Your task to perform on an android device: open app "DoorDash - Food Delivery" (install if not already installed) and go to login screen Image 0: 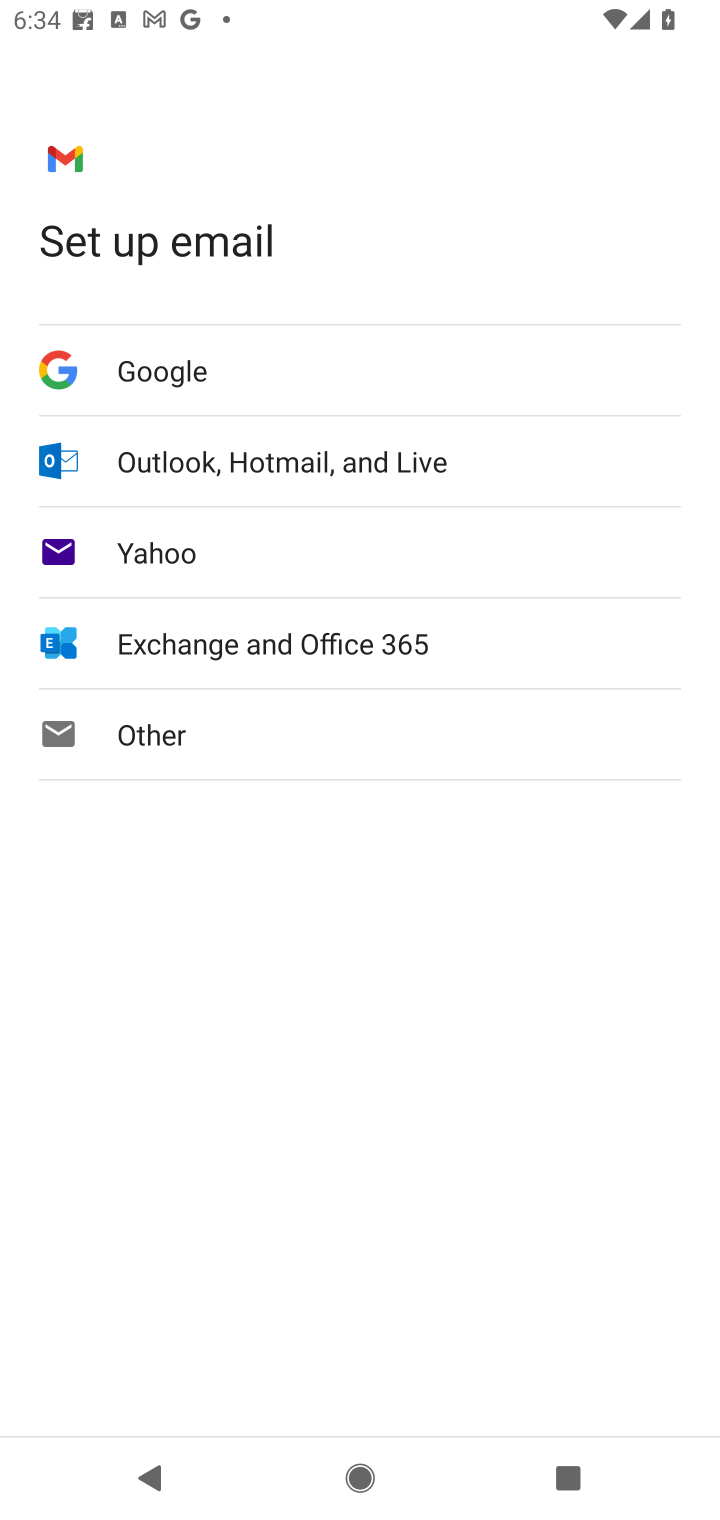
Step 0: press home button
Your task to perform on an android device: open app "DoorDash - Food Delivery" (install if not already installed) and go to login screen Image 1: 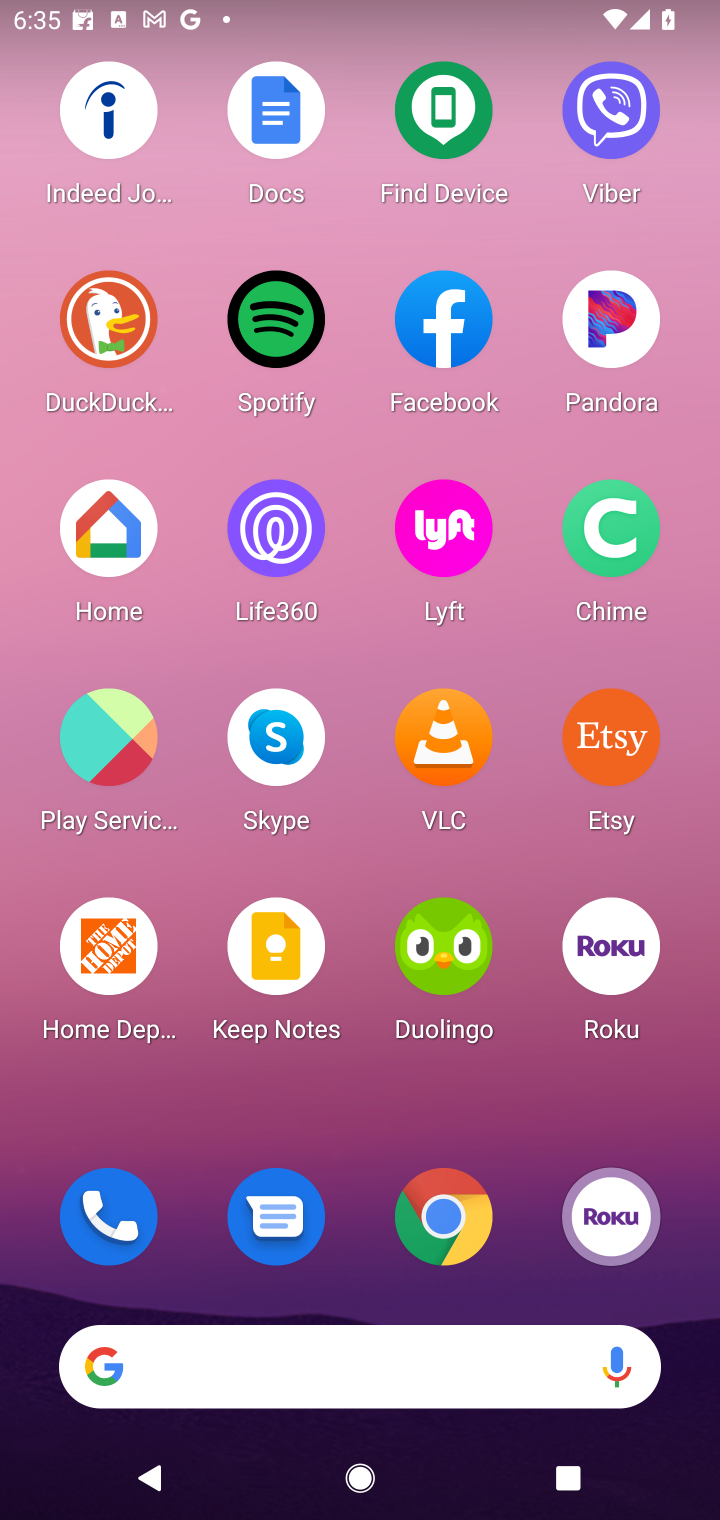
Step 1: drag from (350, 1133) to (363, 171)
Your task to perform on an android device: open app "DoorDash - Food Delivery" (install if not already installed) and go to login screen Image 2: 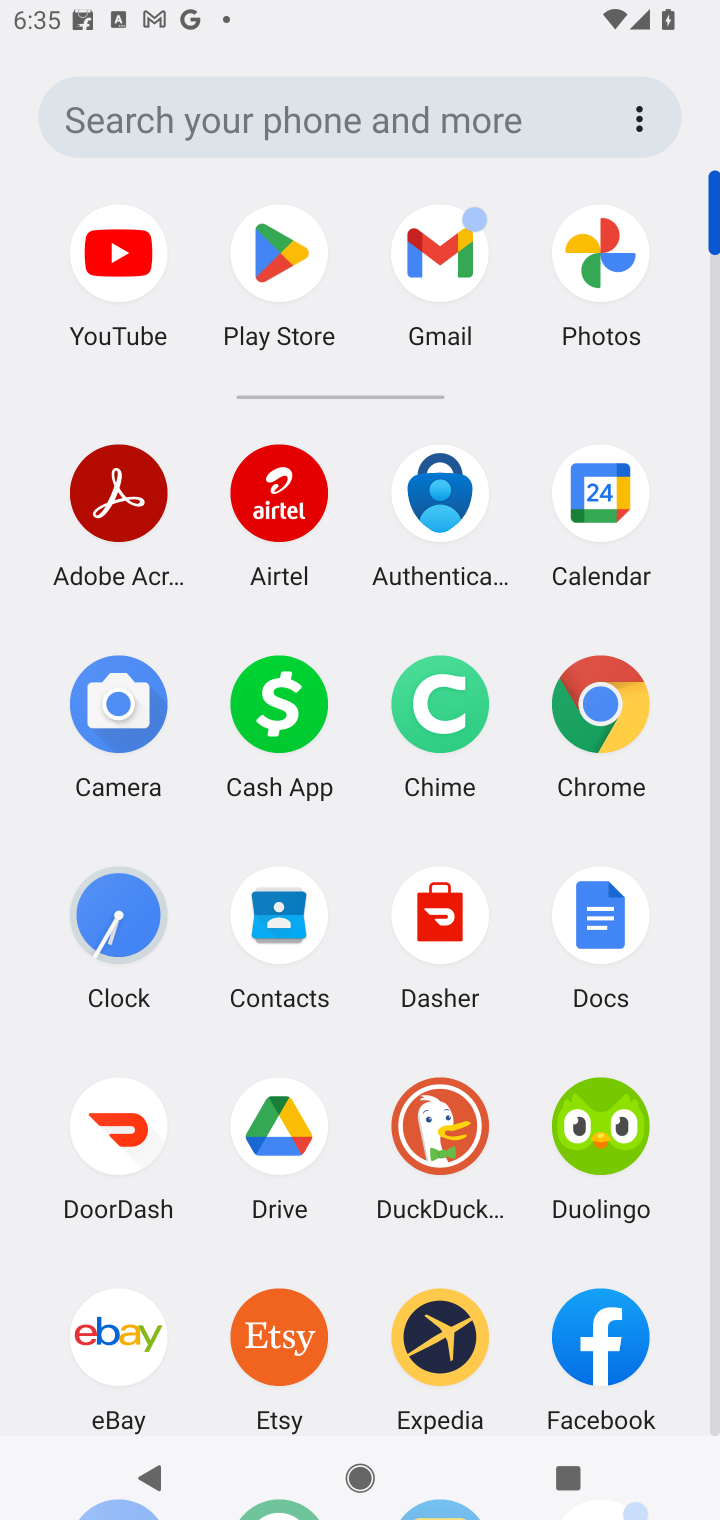
Step 2: click (290, 306)
Your task to perform on an android device: open app "DoorDash - Food Delivery" (install if not already installed) and go to login screen Image 3: 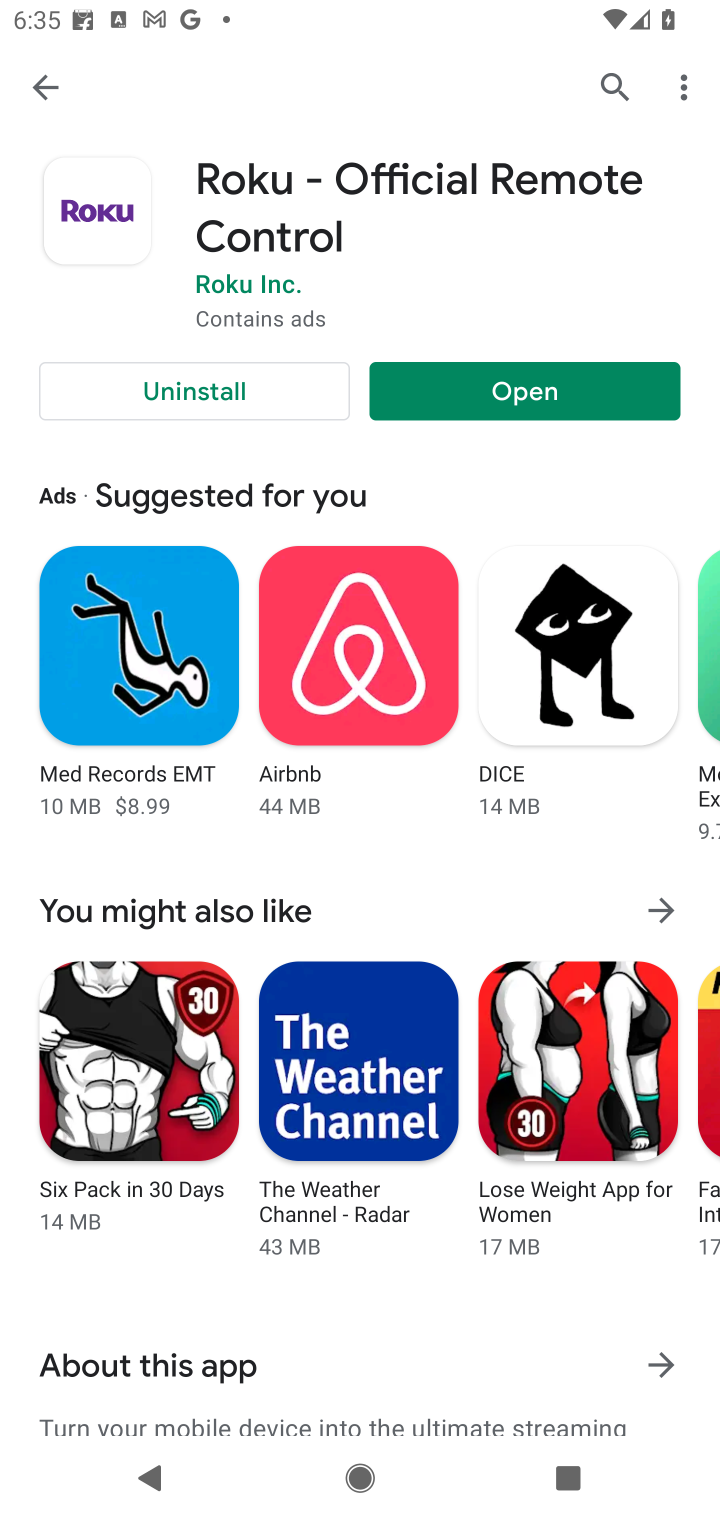
Step 3: click (627, 91)
Your task to perform on an android device: open app "DoorDash - Food Delivery" (install if not already installed) and go to login screen Image 4: 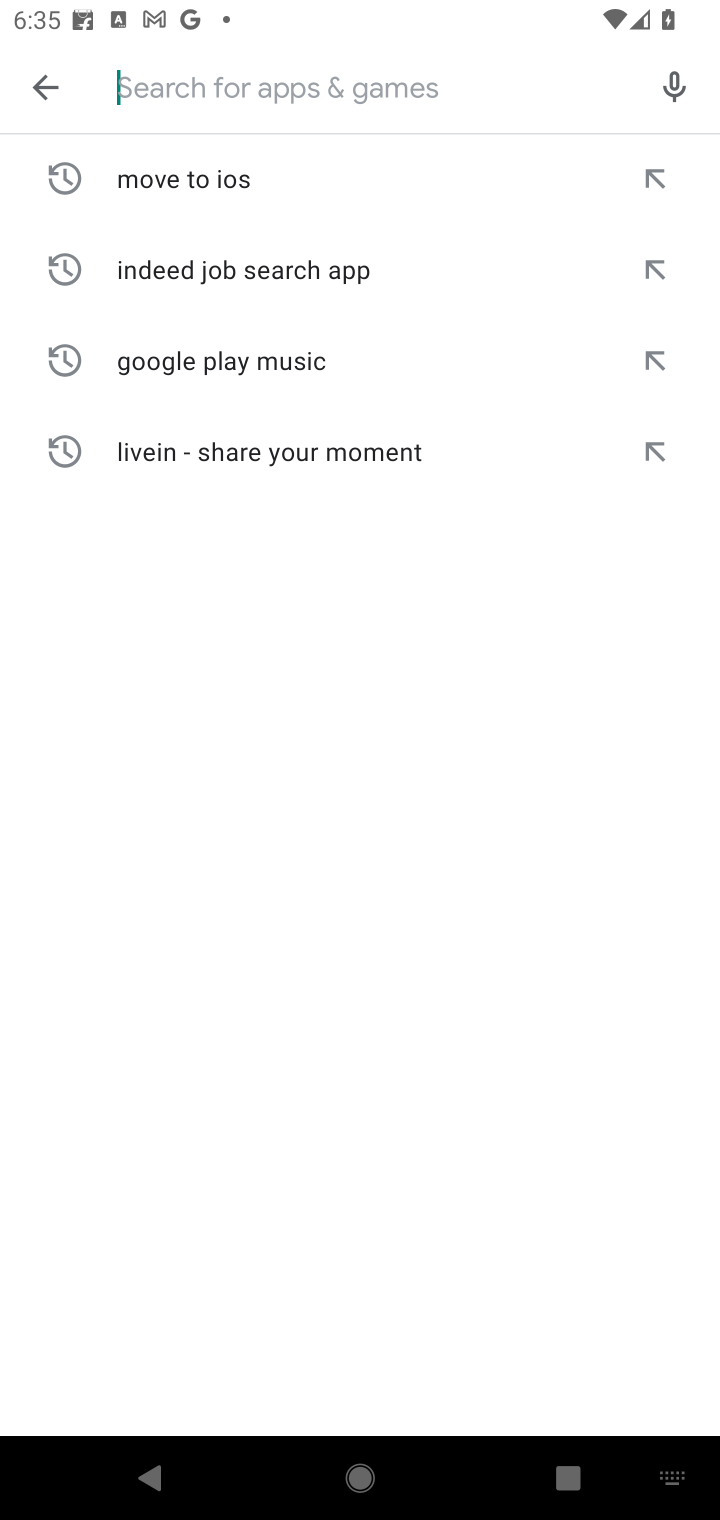
Step 4: type "DoorDash - Food Delivery"
Your task to perform on an android device: open app "DoorDash - Food Delivery" (install if not already installed) and go to login screen Image 5: 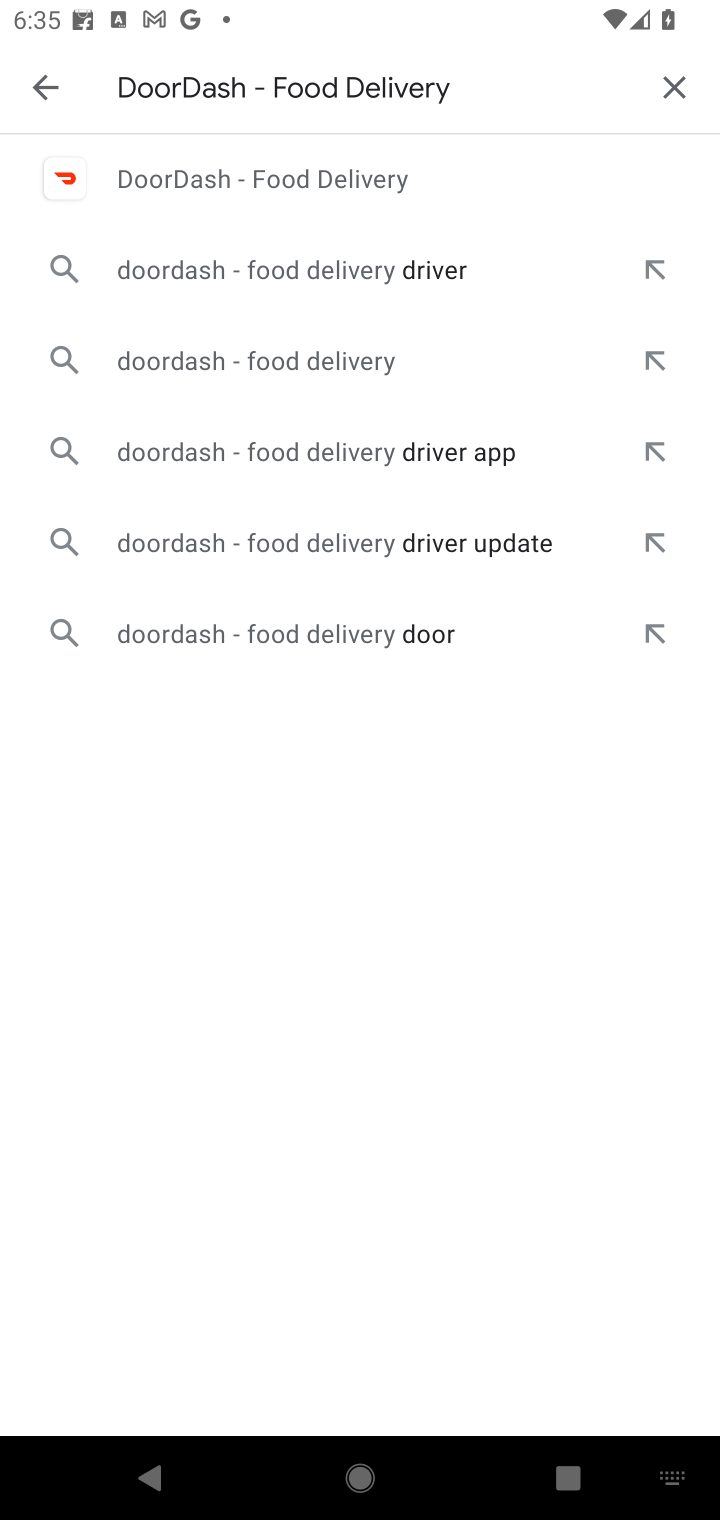
Step 5: click (223, 185)
Your task to perform on an android device: open app "DoorDash - Food Delivery" (install if not already installed) and go to login screen Image 6: 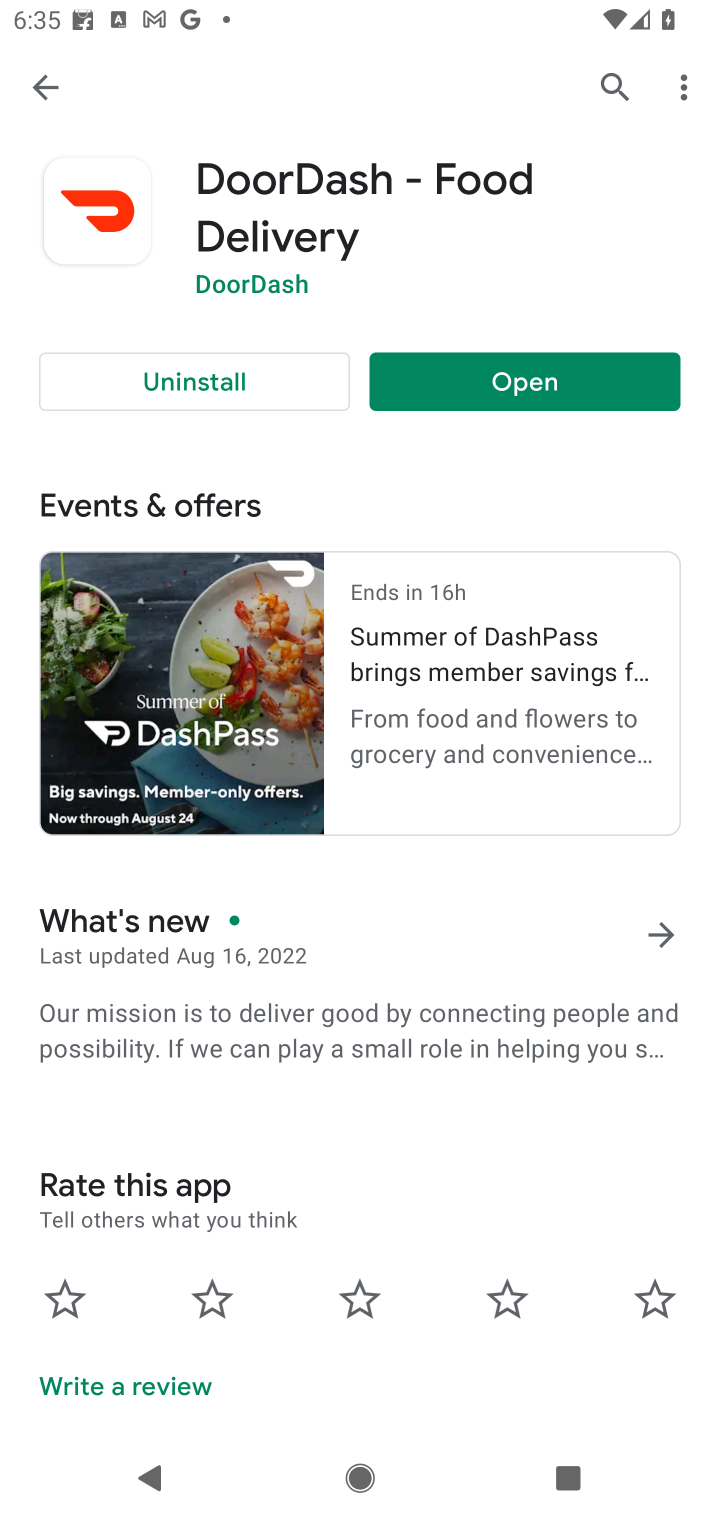
Step 6: click (601, 397)
Your task to perform on an android device: open app "DoorDash - Food Delivery" (install if not already installed) and go to login screen Image 7: 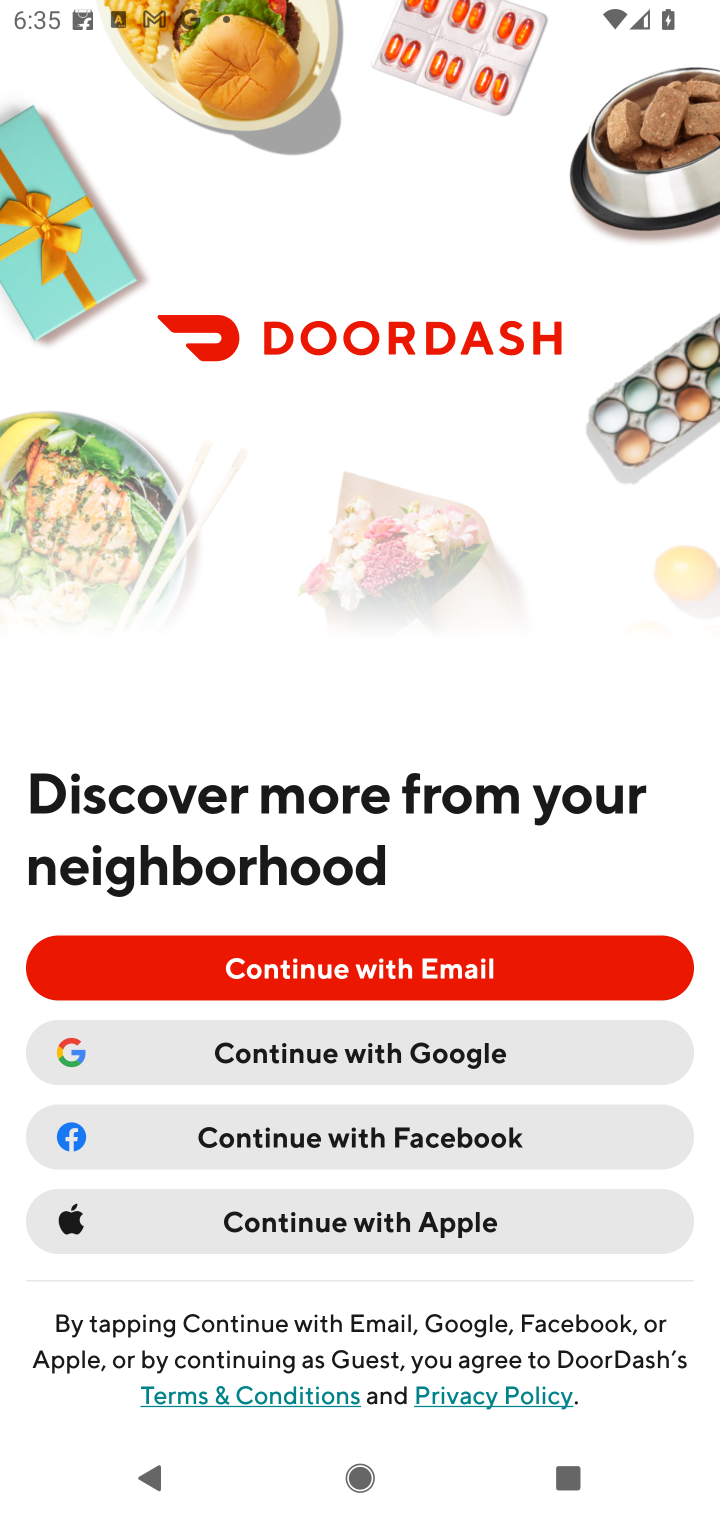
Step 7: task complete